Your task to perform on an android device: delete a single message in the gmail app Image 0: 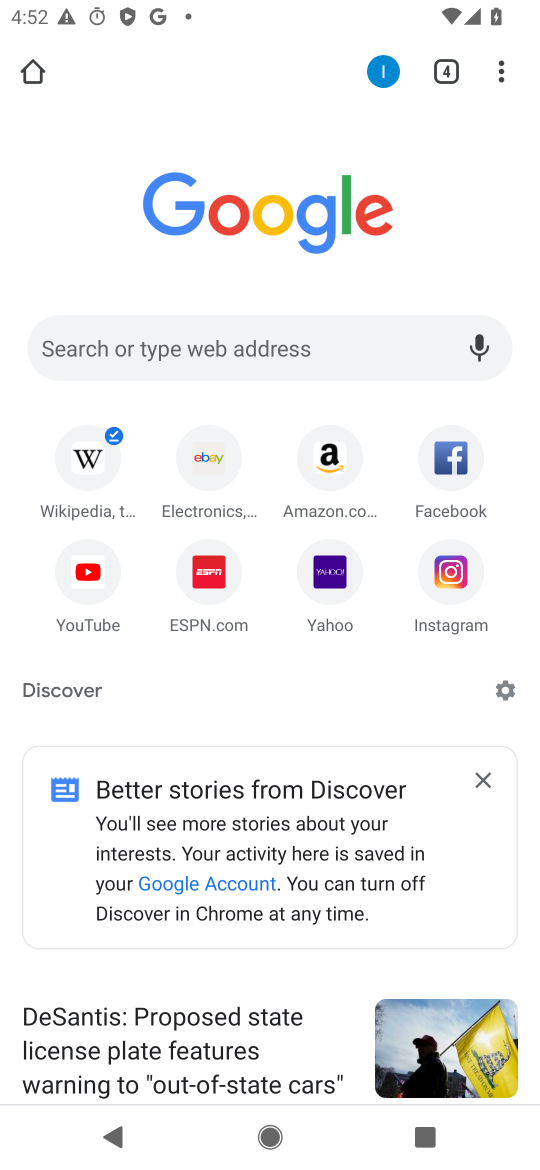
Step 0: press home button
Your task to perform on an android device: delete a single message in the gmail app Image 1: 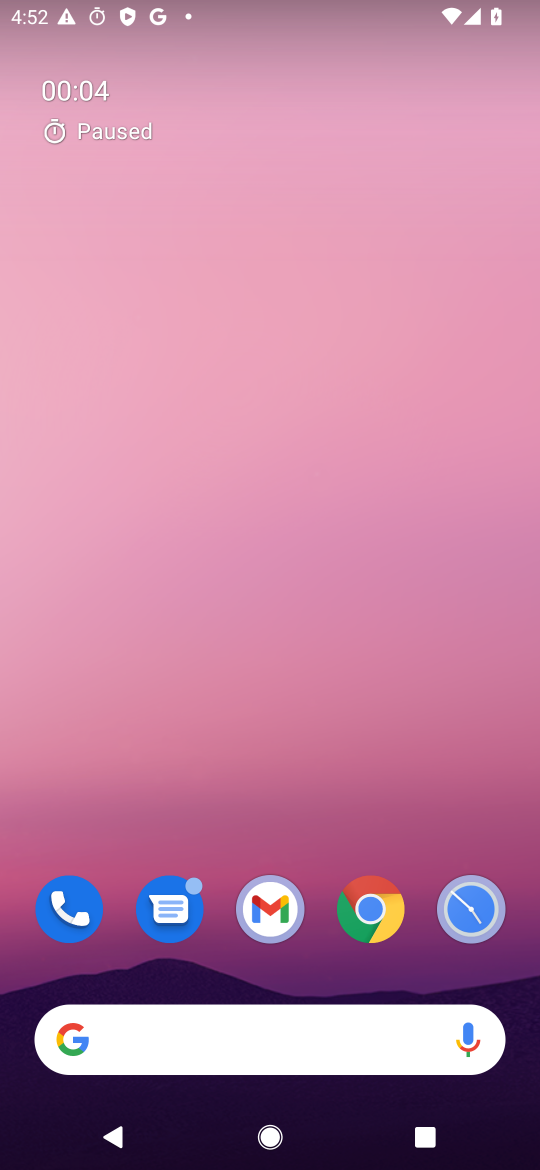
Step 1: click (276, 910)
Your task to perform on an android device: delete a single message in the gmail app Image 2: 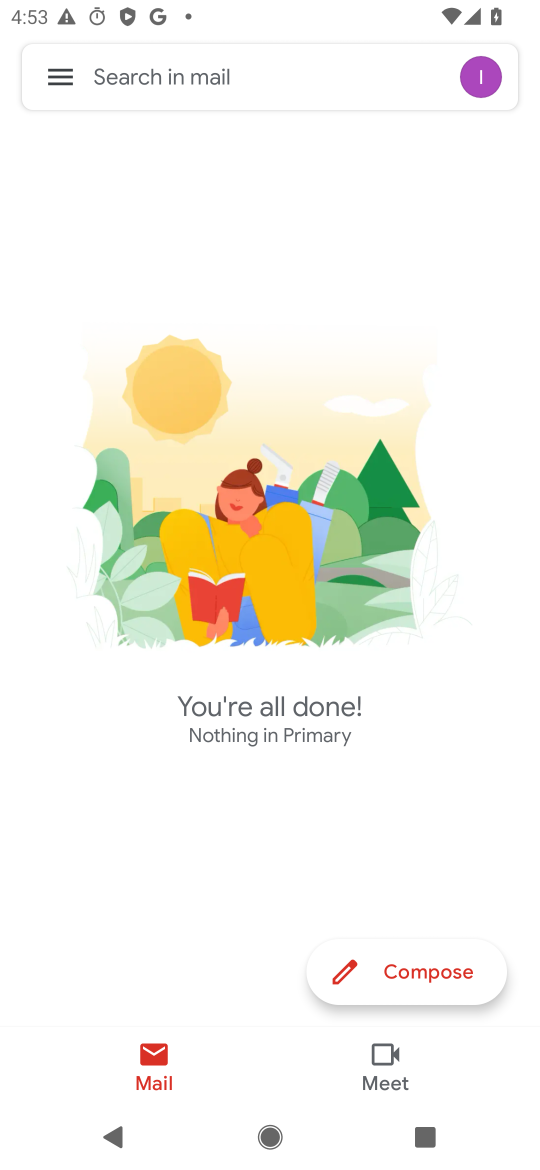
Step 2: click (60, 68)
Your task to perform on an android device: delete a single message in the gmail app Image 3: 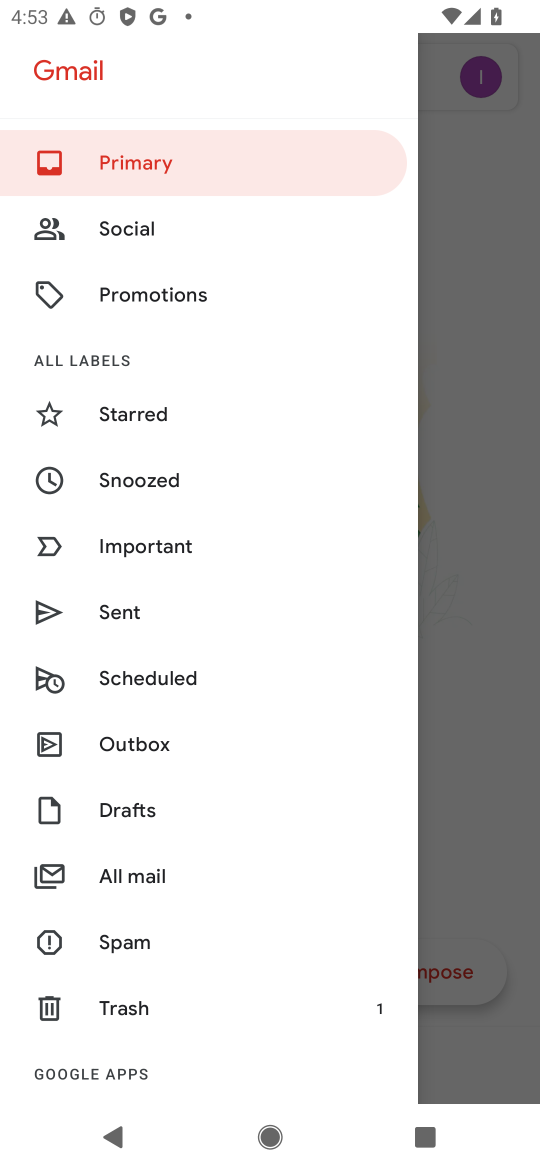
Step 3: click (202, 876)
Your task to perform on an android device: delete a single message in the gmail app Image 4: 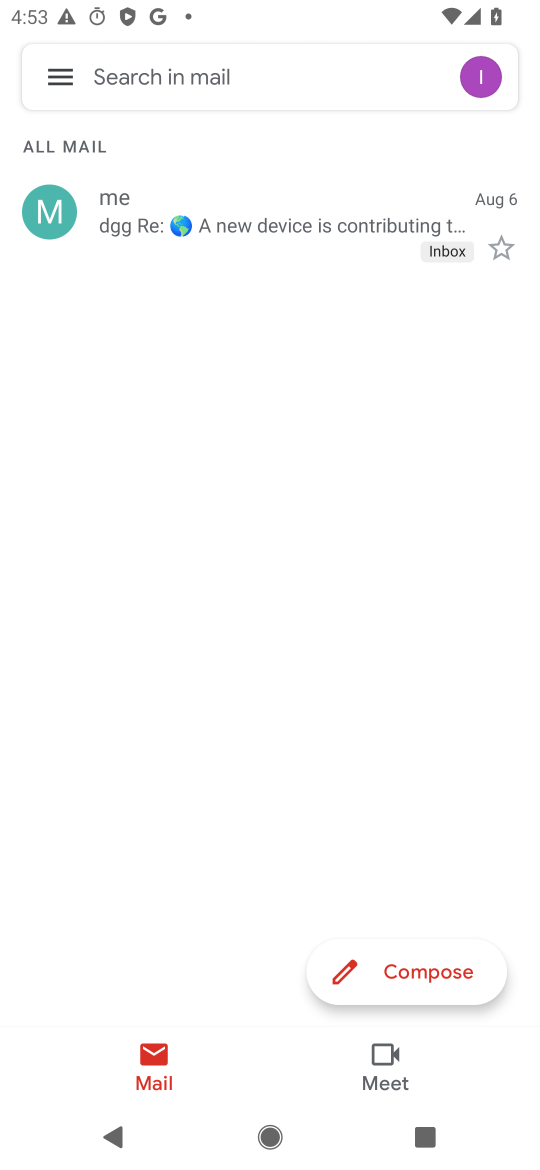
Step 4: click (52, 197)
Your task to perform on an android device: delete a single message in the gmail app Image 5: 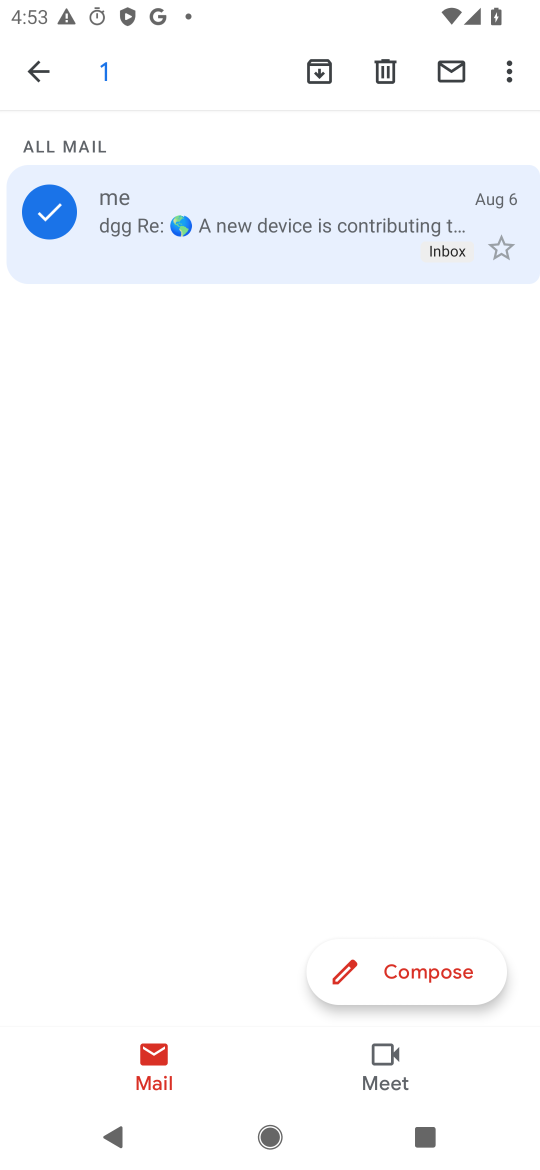
Step 5: click (384, 64)
Your task to perform on an android device: delete a single message in the gmail app Image 6: 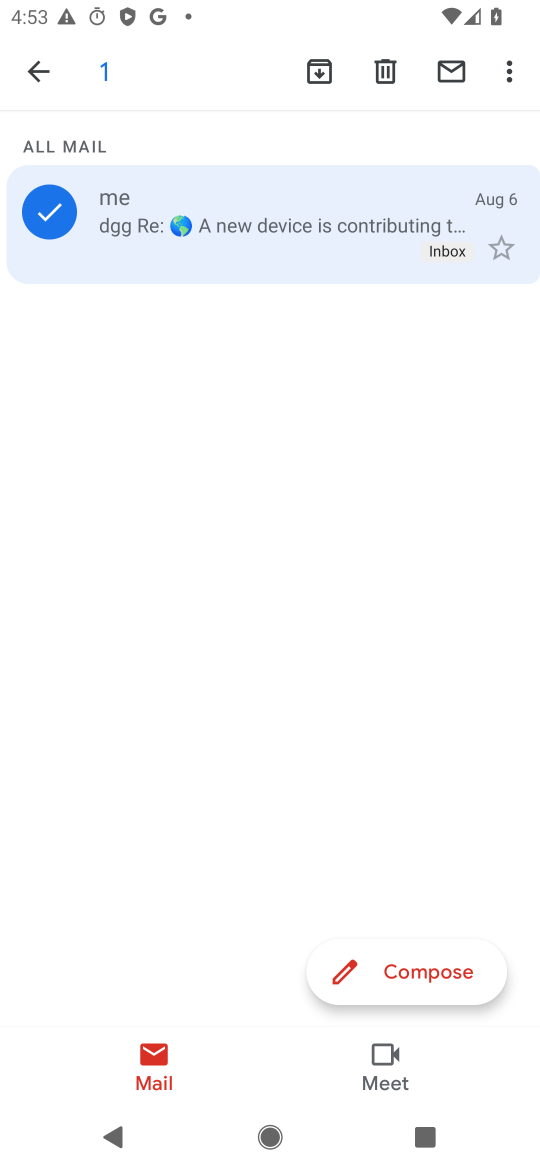
Step 6: click (390, 67)
Your task to perform on an android device: delete a single message in the gmail app Image 7: 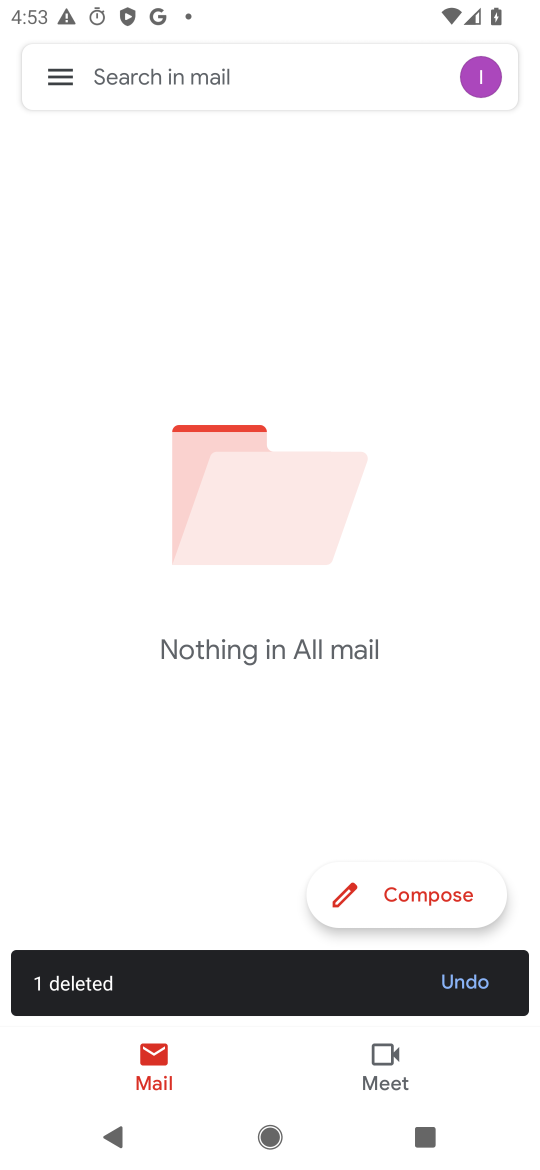
Step 7: task complete